Your task to perform on an android device: When is my next meeting? Image 0: 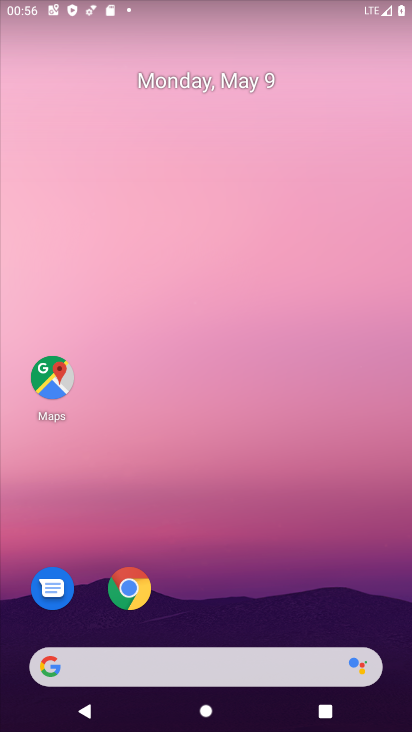
Step 0: drag from (239, 505) to (245, 36)
Your task to perform on an android device: When is my next meeting? Image 1: 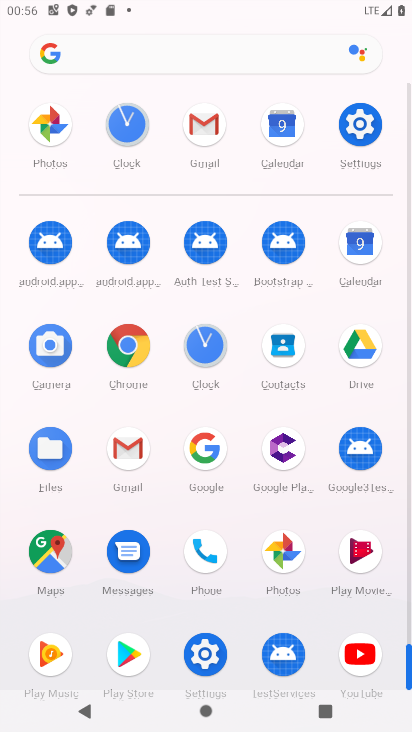
Step 1: click (360, 247)
Your task to perform on an android device: When is my next meeting? Image 2: 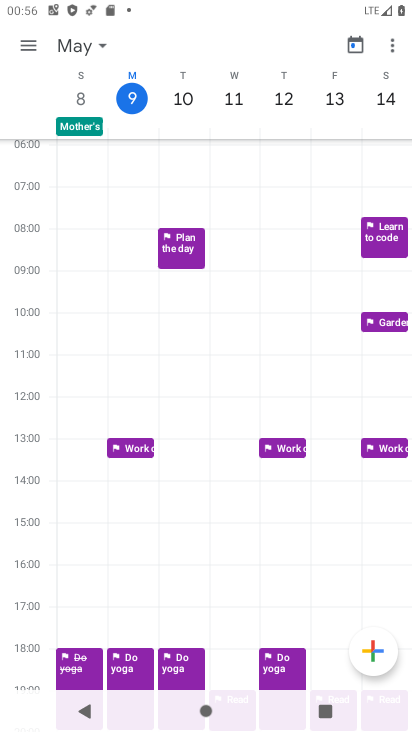
Step 2: task complete